Your task to perform on an android device: What's on my calendar tomorrow? Image 0: 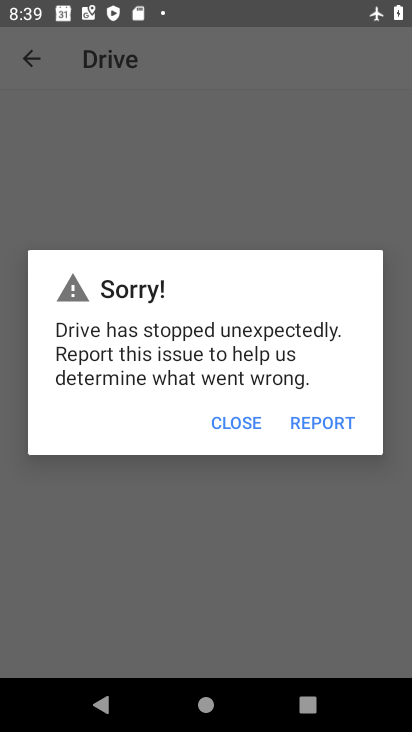
Step 0: press home button
Your task to perform on an android device: What's on my calendar tomorrow? Image 1: 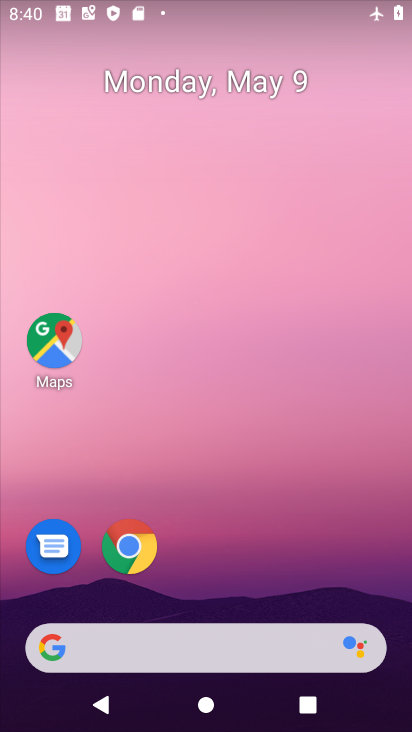
Step 1: drag from (256, 687) to (351, 158)
Your task to perform on an android device: What's on my calendar tomorrow? Image 2: 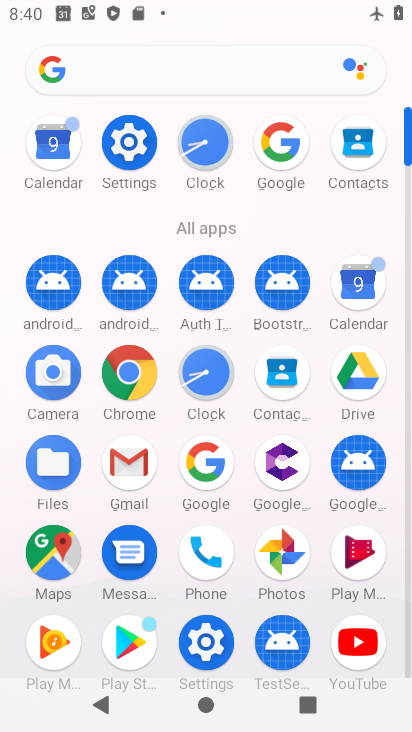
Step 2: click (350, 286)
Your task to perform on an android device: What's on my calendar tomorrow? Image 3: 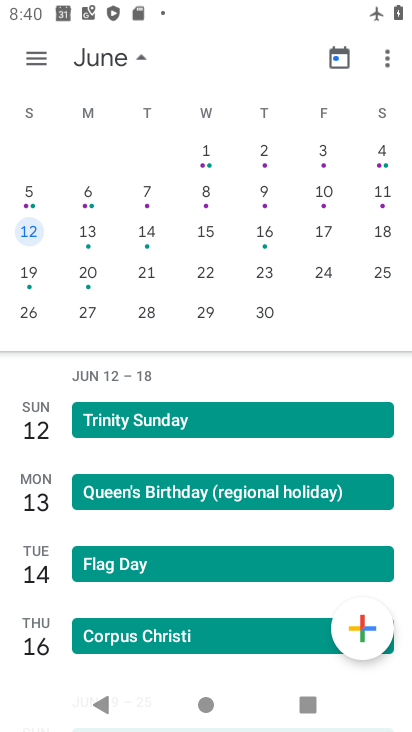
Step 3: drag from (35, 301) to (405, 207)
Your task to perform on an android device: What's on my calendar tomorrow? Image 4: 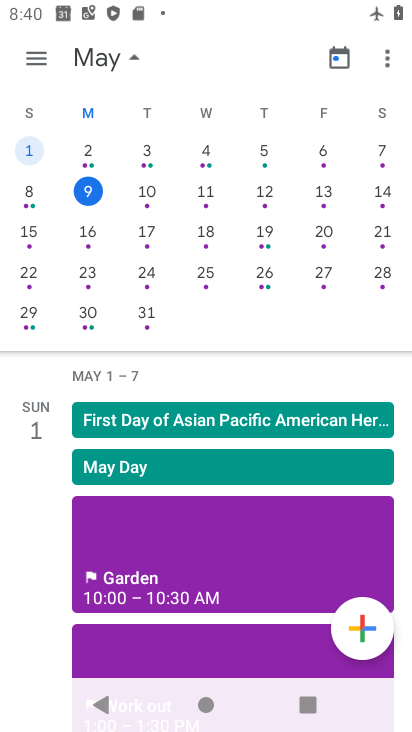
Step 4: click (151, 189)
Your task to perform on an android device: What's on my calendar tomorrow? Image 5: 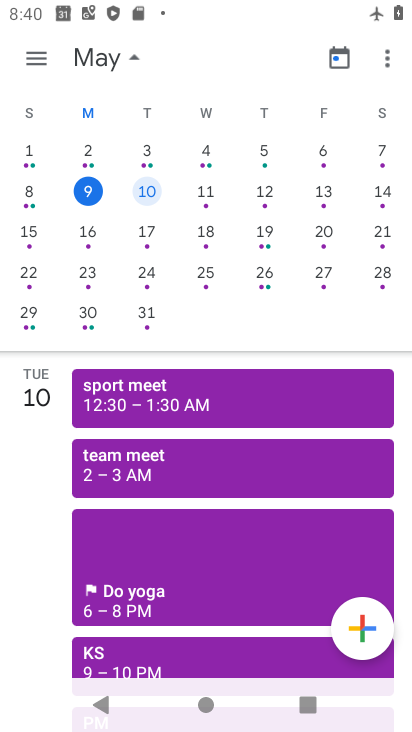
Step 5: task complete